Your task to perform on an android device: allow cookies in the chrome app Image 0: 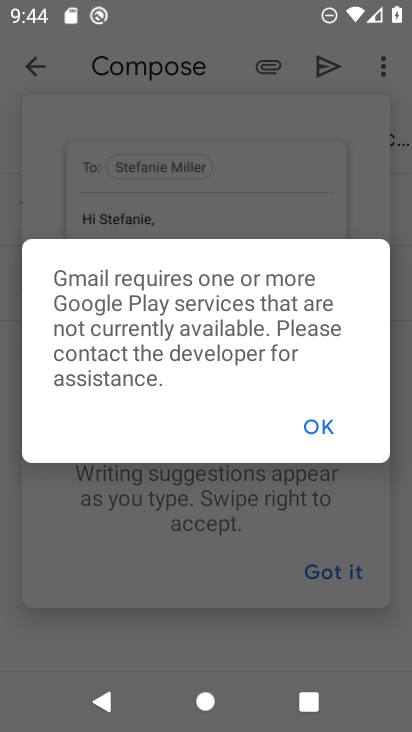
Step 0: press home button
Your task to perform on an android device: allow cookies in the chrome app Image 1: 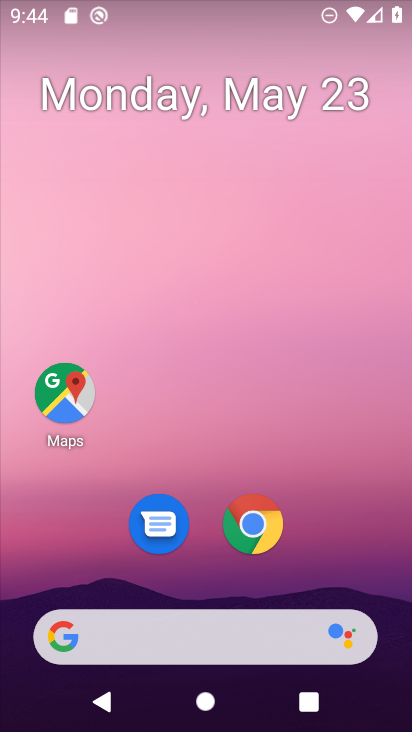
Step 1: click (264, 517)
Your task to perform on an android device: allow cookies in the chrome app Image 2: 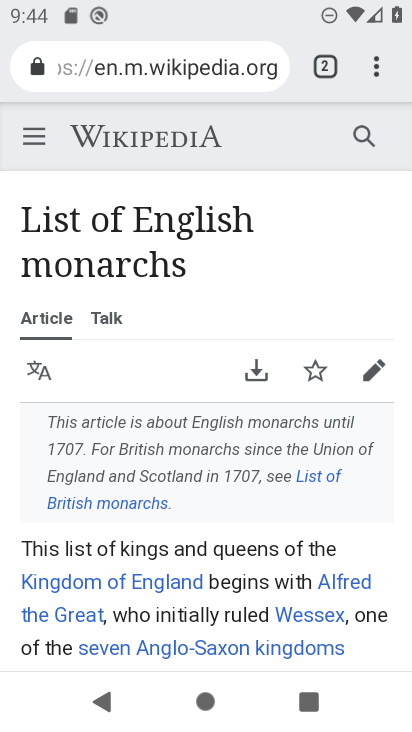
Step 2: click (373, 65)
Your task to perform on an android device: allow cookies in the chrome app Image 3: 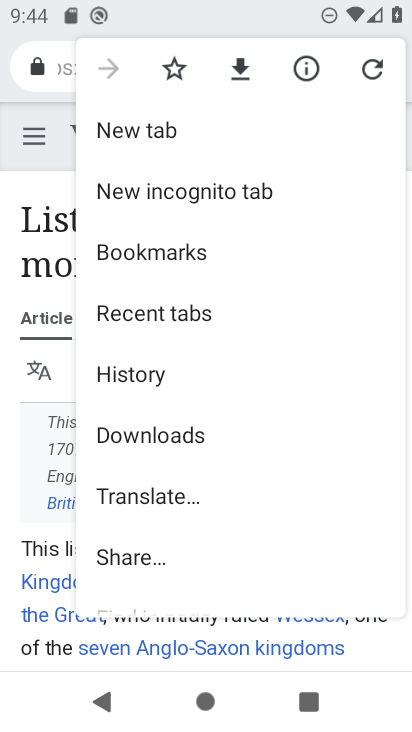
Step 3: drag from (228, 440) to (272, 85)
Your task to perform on an android device: allow cookies in the chrome app Image 4: 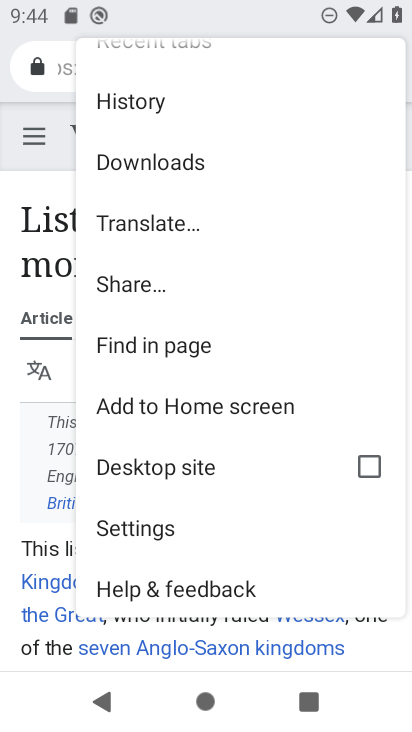
Step 4: click (158, 518)
Your task to perform on an android device: allow cookies in the chrome app Image 5: 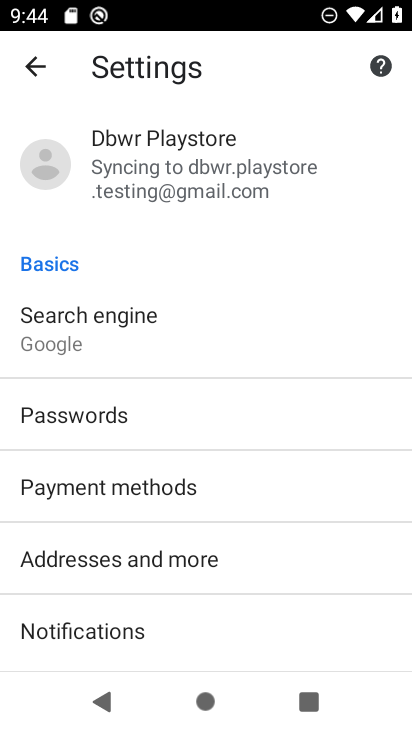
Step 5: drag from (221, 608) to (248, 159)
Your task to perform on an android device: allow cookies in the chrome app Image 6: 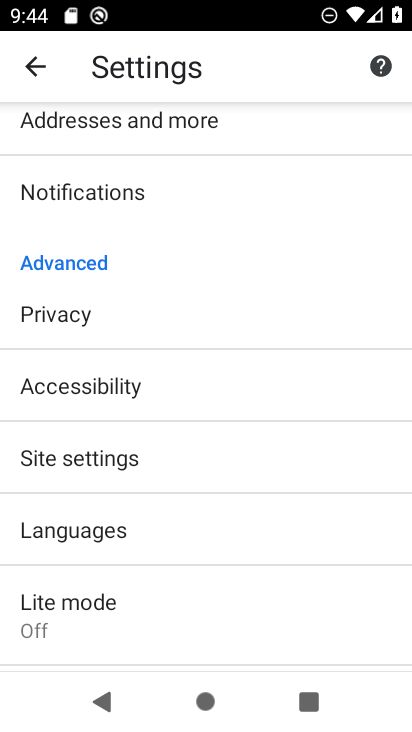
Step 6: click (120, 451)
Your task to perform on an android device: allow cookies in the chrome app Image 7: 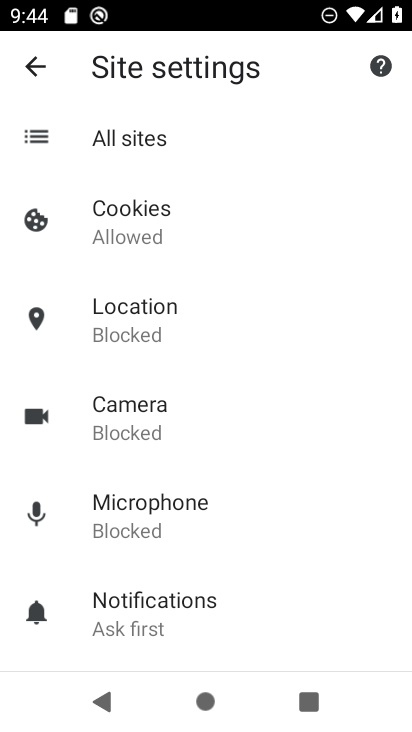
Step 7: task complete